Your task to perform on an android device: toggle pop-ups in chrome Image 0: 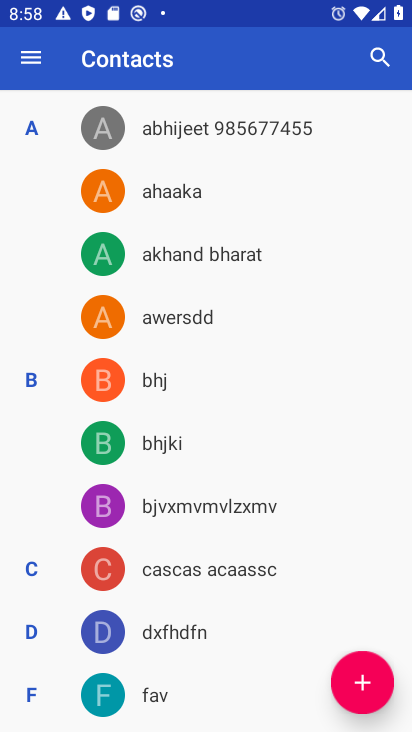
Step 0: press home button
Your task to perform on an android device: toggle pop-ups in chrome Image 1: 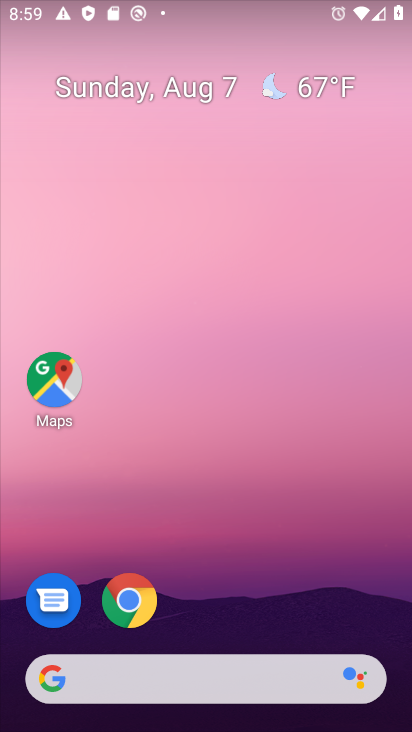
Step 1: click (126, 601)
Your task to perform on an android device: toggle pop-ups in chrome Image 2: 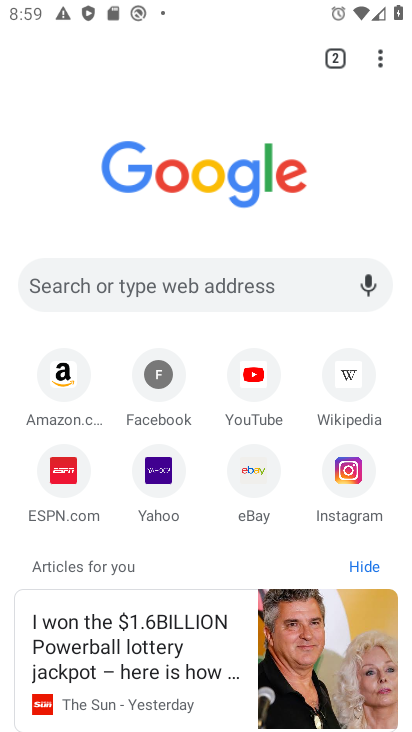
Step 2: click (381, 59)
Your task to perform on an android device: toggle pop-ups in chrome Image 3: 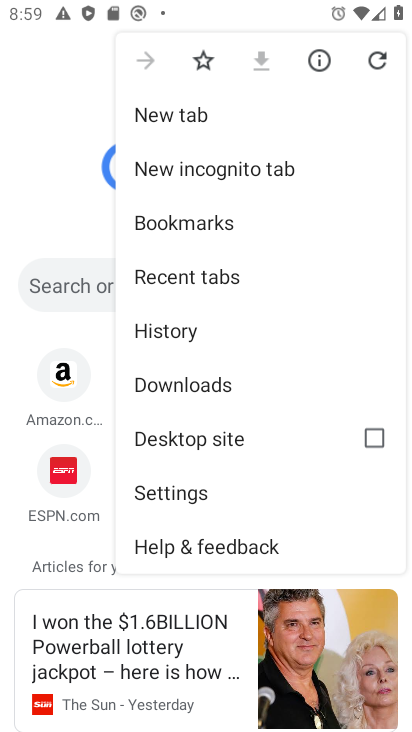
Step 3: click (183, 491)
Your task to perform on an android device: toggle pop-ups in chrome Image 4: 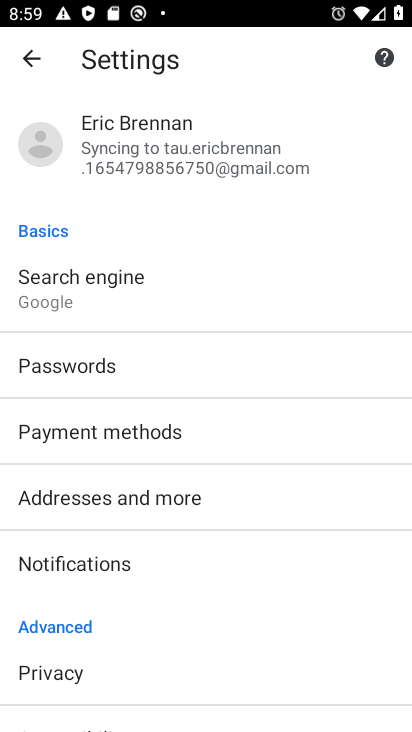
Step 4: click (201, 627)
Your task to perform on an android device: toggle pop-ups in chrome Image 5: 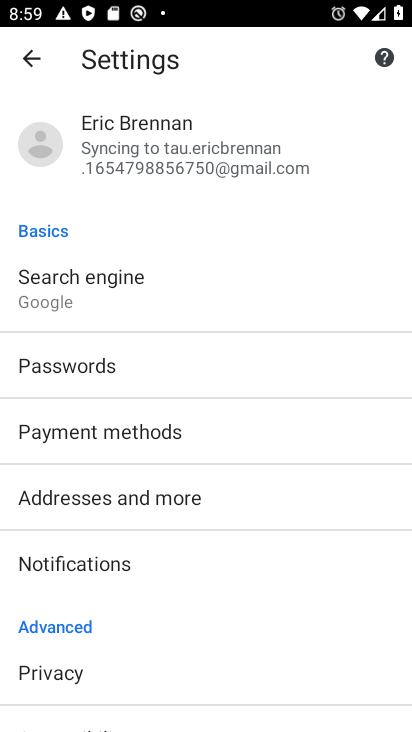
Step 5: drag from (124, 644) to (201, 181)
Your task to perform on an android device: toggle pop-ups in chrome Image 6: 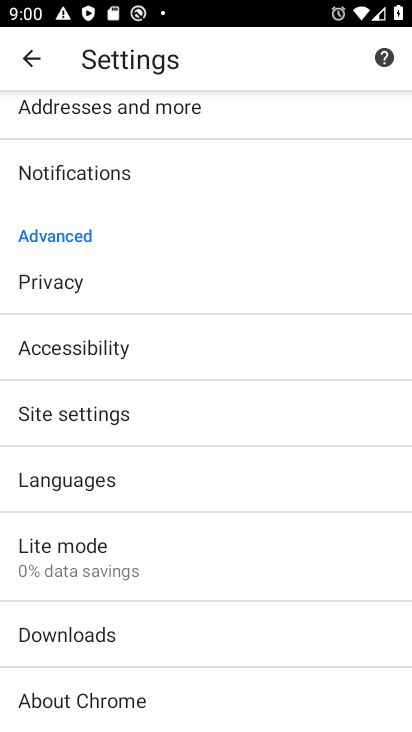
Step 6: click (104, 417)
Your task to perform on an android device: toggle pop-ups in chrome Image 7: 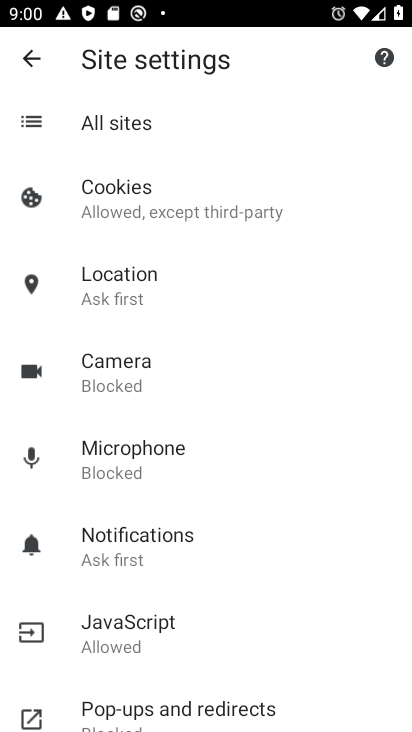
Step 7: click (151, 700)
Your task to perform on an android device: toggle pop-ups in chrome Image 8: 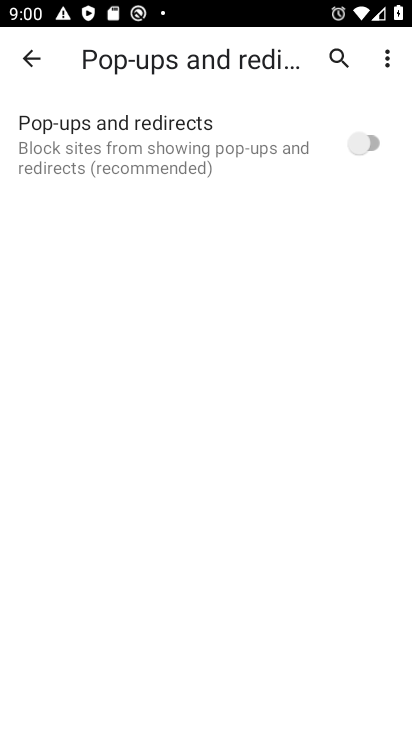
Step 8: click (378, 148)
Your task to perform on an android device: toggle pop-ups in chrome Image 9: 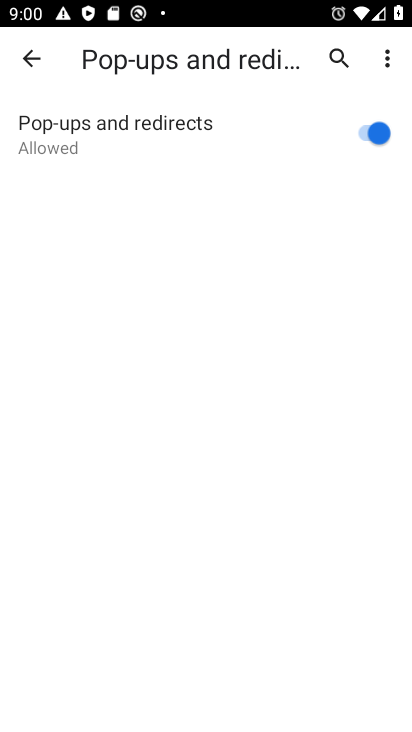
Step 9: task complete